Your task to perform on an android device: Open sound settings Image 0: 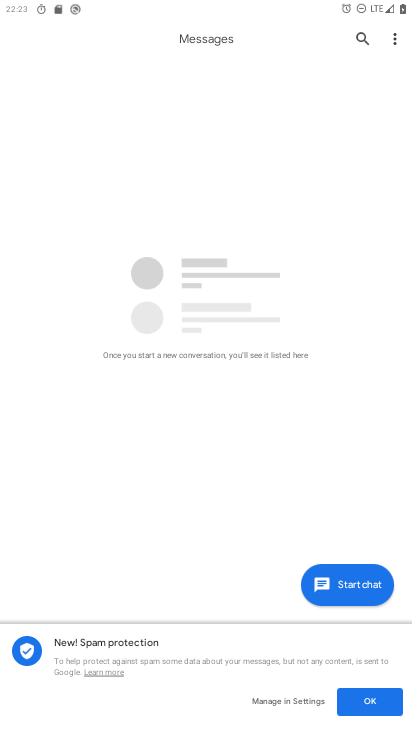
Step 0: drag from (201, 657) to (300, 177)
Your task to perform on an android device: Open sound settings Image 1: 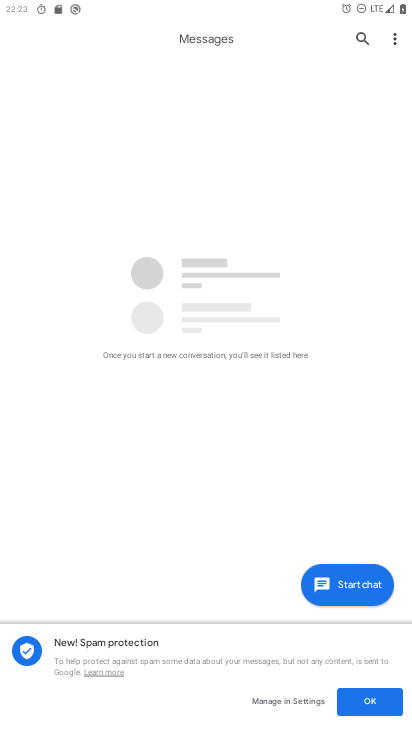
Step 1: press home button
Your task to perform on an android device: Open sound settings Image 2: 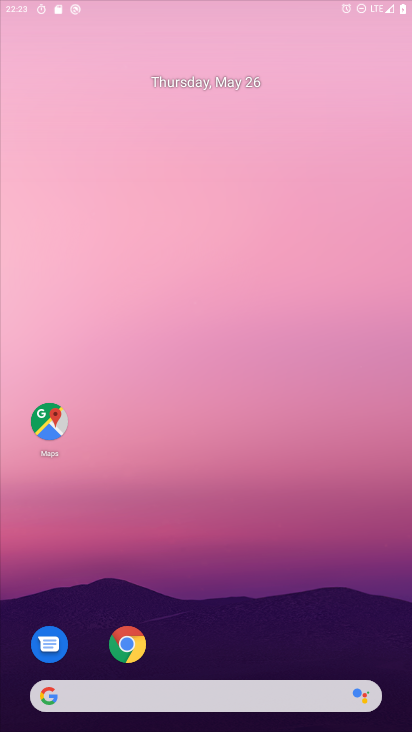
Step 2: drag from (191, 600) to (198, 208)
Your task to perform on an android device: Open sound settings Image 3: 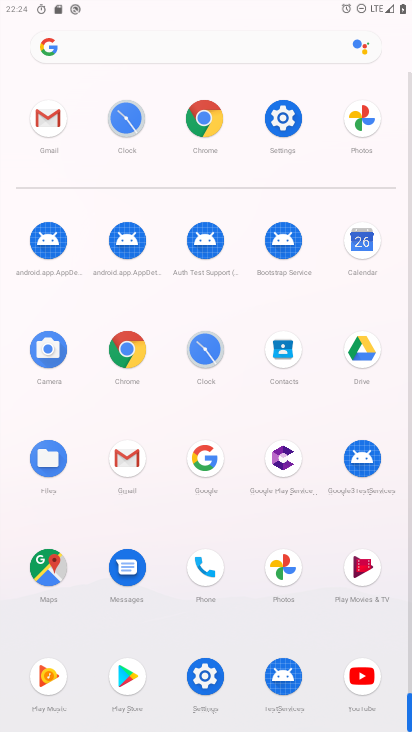
Step 3: click (282, 119)
Your task to perform on an android device: Open sound settings Image 4: 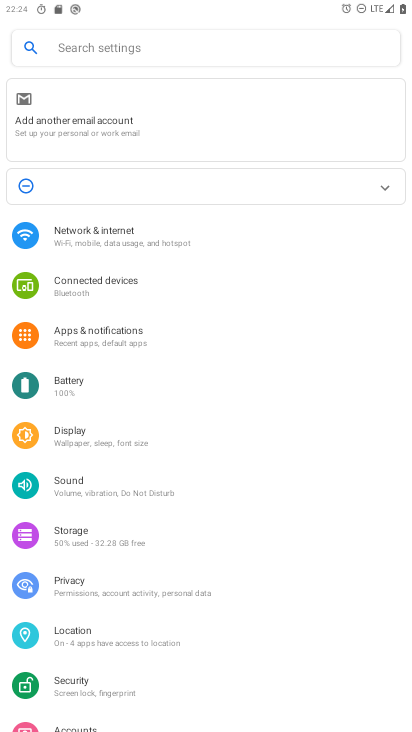
Step 4: click (91, 484)
Your task to perform on an android device: Open sound settings Image 5: 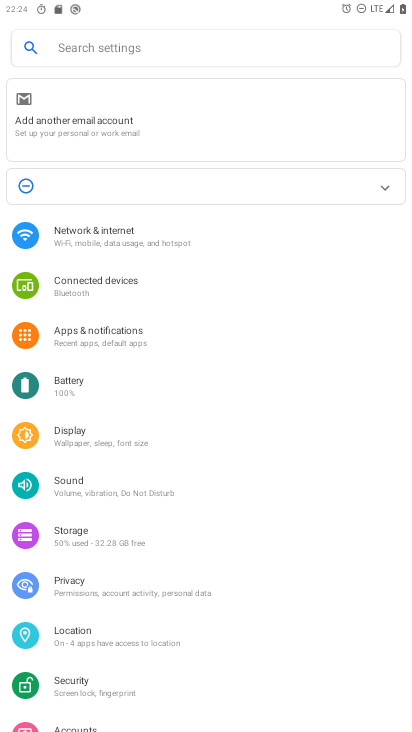
Step 5: click (145, 481)
Your task to perform on an android device: Open sound settings Image 6: 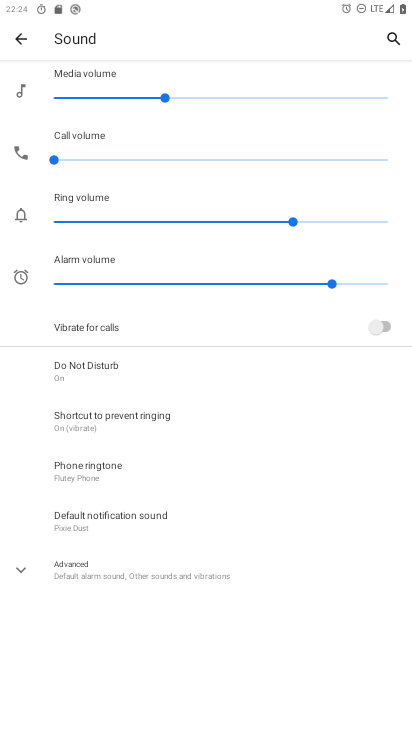
Step 6: task complete